Your task to perform on an android device: see tabs open on other devices in the chrome app Image 0: 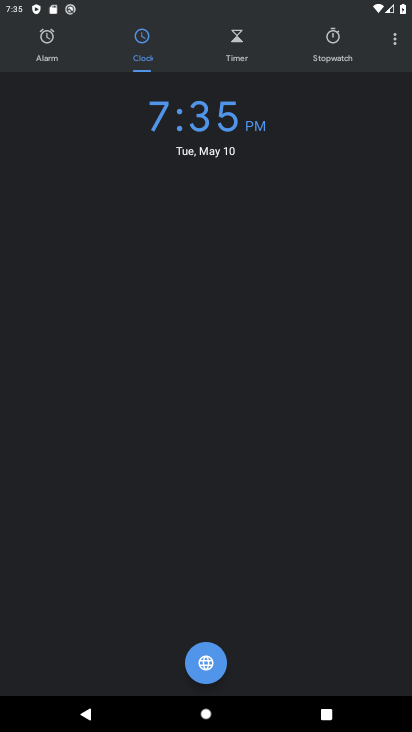
Step 0: press home button
Your task to perform on an android device: see tabs open on other devices in the chrome app Image 1: 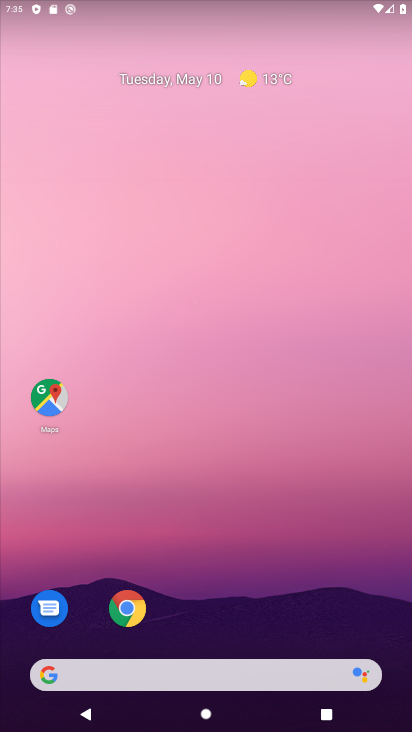
Step 1: click (136, 610)
Your task to perform on an android device: see tabs open on other devices in the chrome app Image 2: 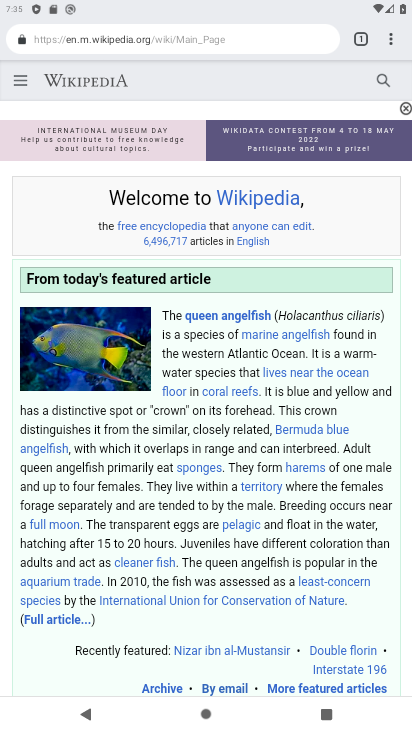
Step 2: task complete